Your task to perform on an android device: What's on my calendar today? Image 0: 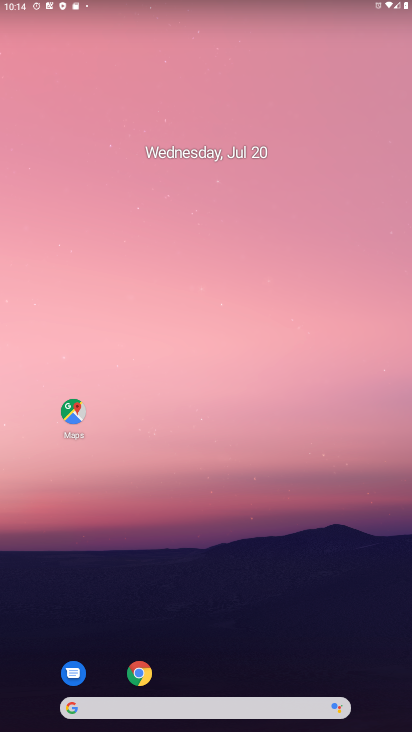
Step 0: drag from (225, 719) to (215, 14)
Your task to perform on an android device: What's on my calendar today? Image 1: 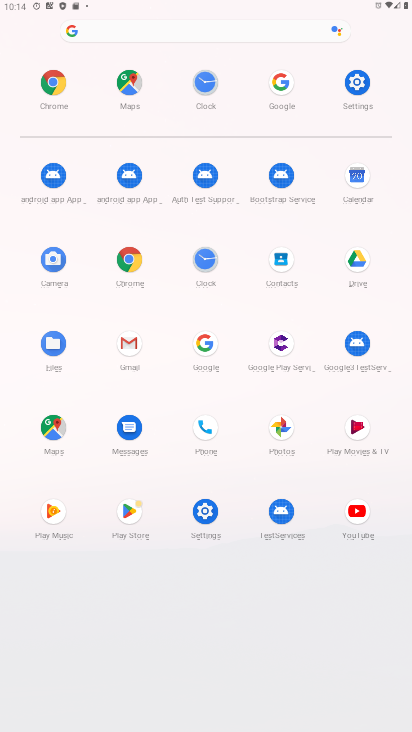
Step 1: click (356, 175)
Your task to perform on an android device: What's on my calendar today? Image 2: 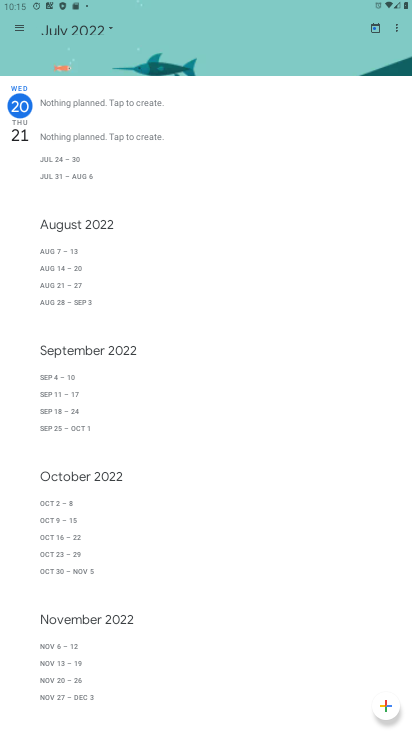
Step 2: task complete